Your task to perform on an android device: Open the Play Movies app and select the watchlist tab. Image 0: 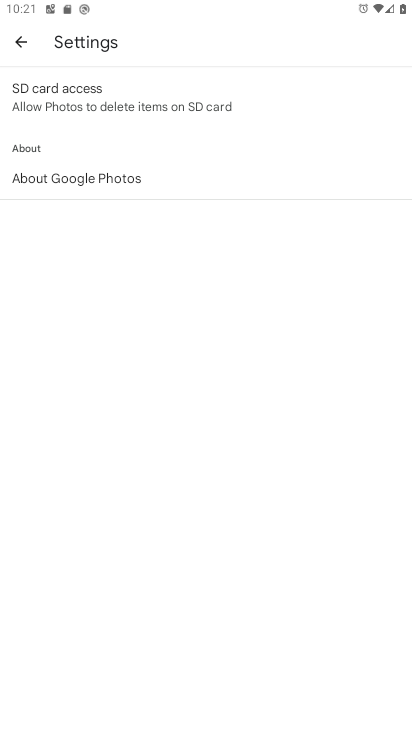
Step 0: task complete